Your task to perform on an android device: Open Google Chrome Image 0: 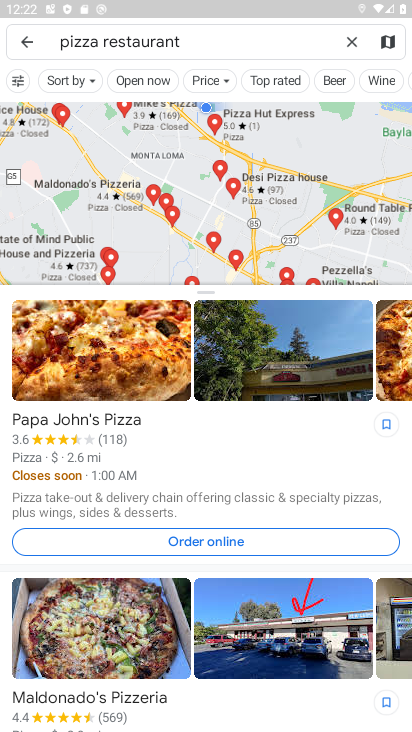
Step 0: press home button
Your task to perform on an android device: Open Google Chrome Image 1: 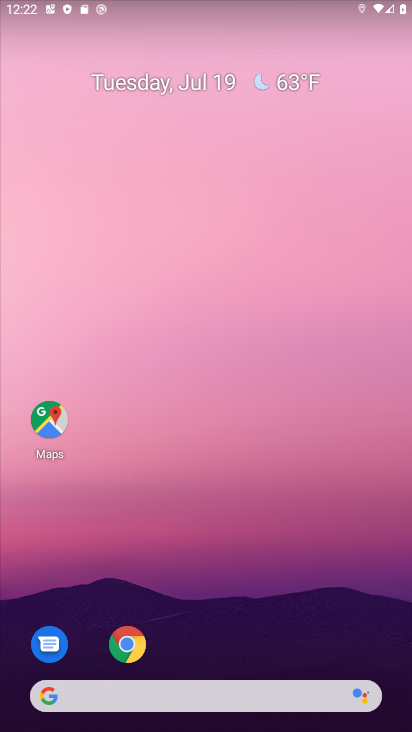
Step 1: click (134, 647)
Your task to perform on an android device: Open Google Chrome Image 2: 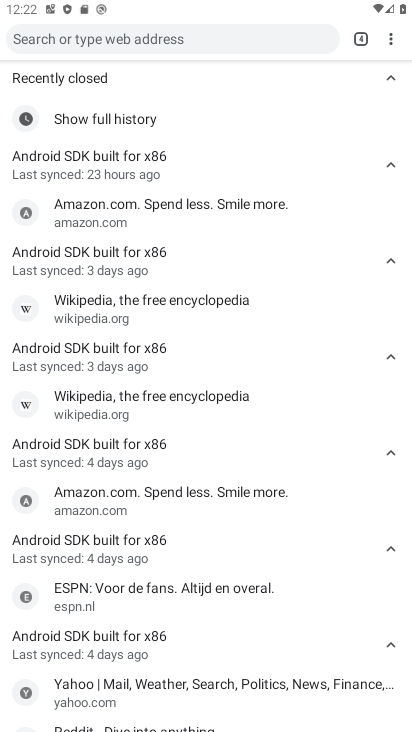
Step 2: task complete